Your task to perform on an android device: see tabs open on other devices in the chrome app Image 0: 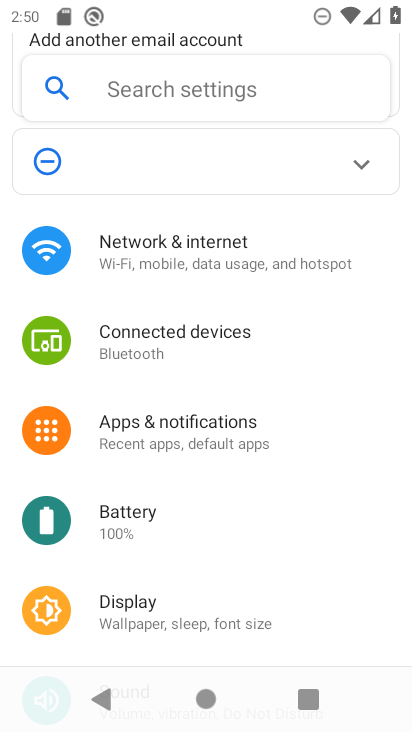
Step 0: press home button
Your task to perform on an android device: see tabs open on other devices in the chrome app Image 1: 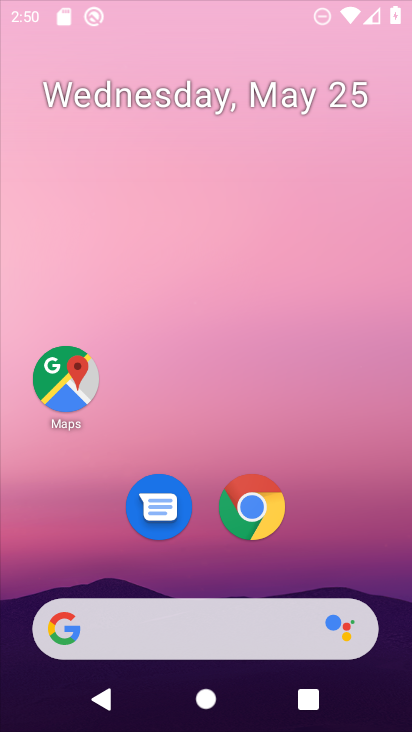
Step 1: drag from (184, 660) to (256, 145)
Your task to perform on an android device: see tabs open on other devices in the chrome app Image 2: 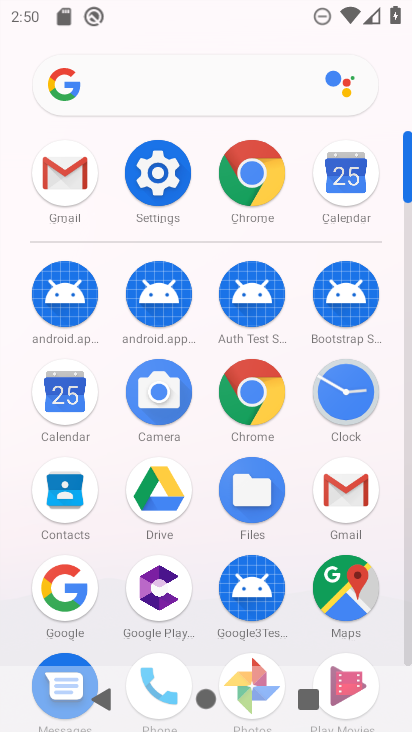
Step 2: click (265, 182)
Your task to perform on an android device: see tabs open on other devices in the chrome app Image 3: 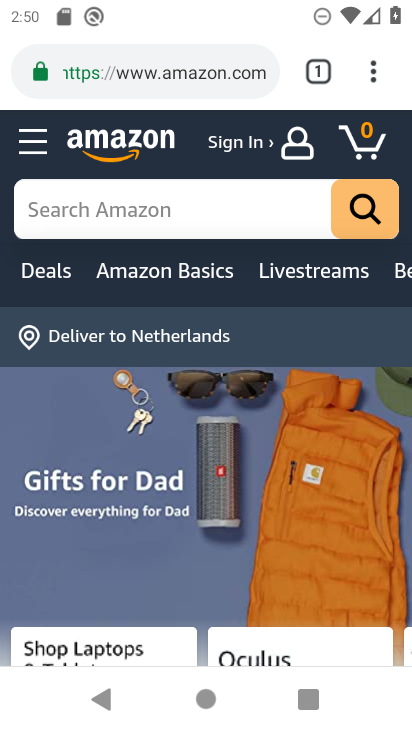
Step 3: task complete